Your task to perform on an android device: Go to battery settings Image 0: 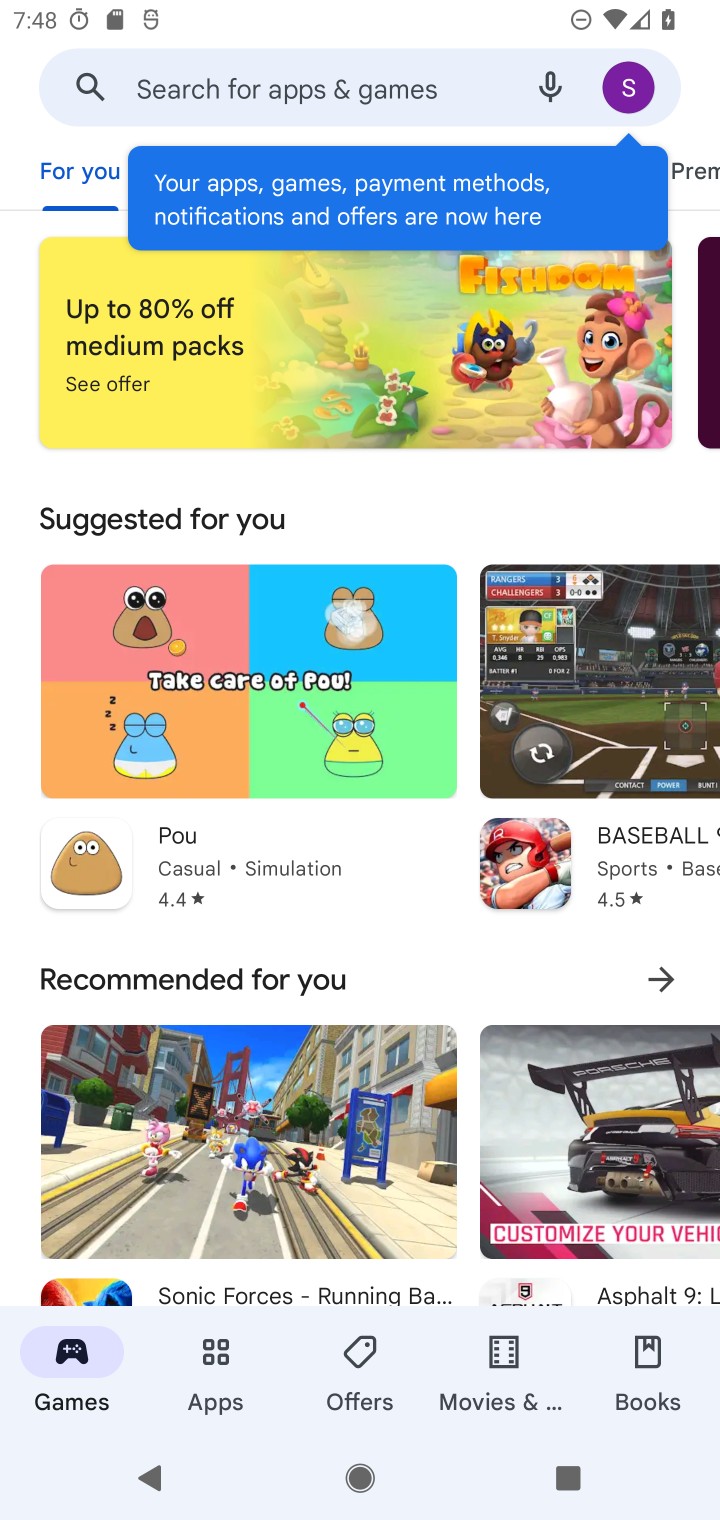
Step 0: press home button
Your task to perform on an android device: Go to battery settings Image 1: 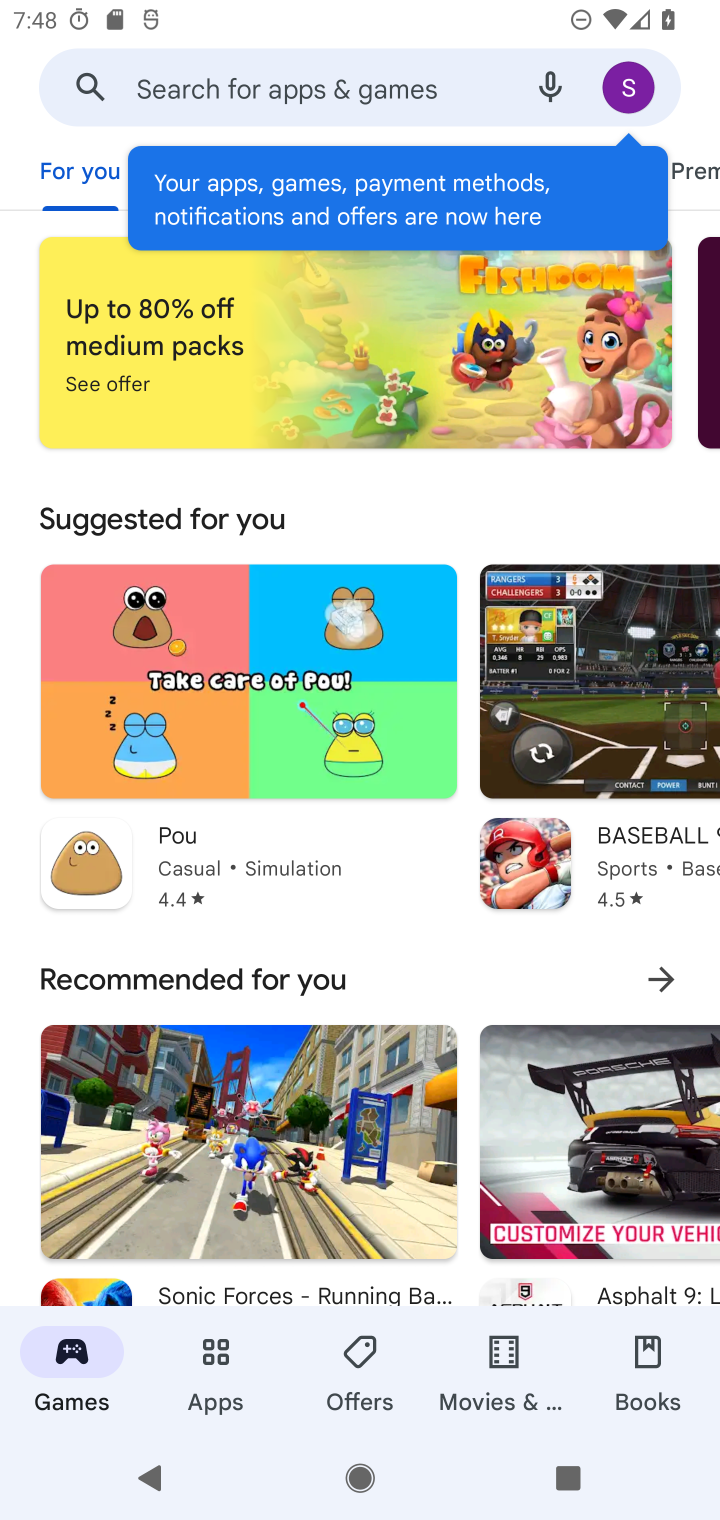
Step 1: press home button
Your task to perform on an android device: Go to battery settings Image 2: 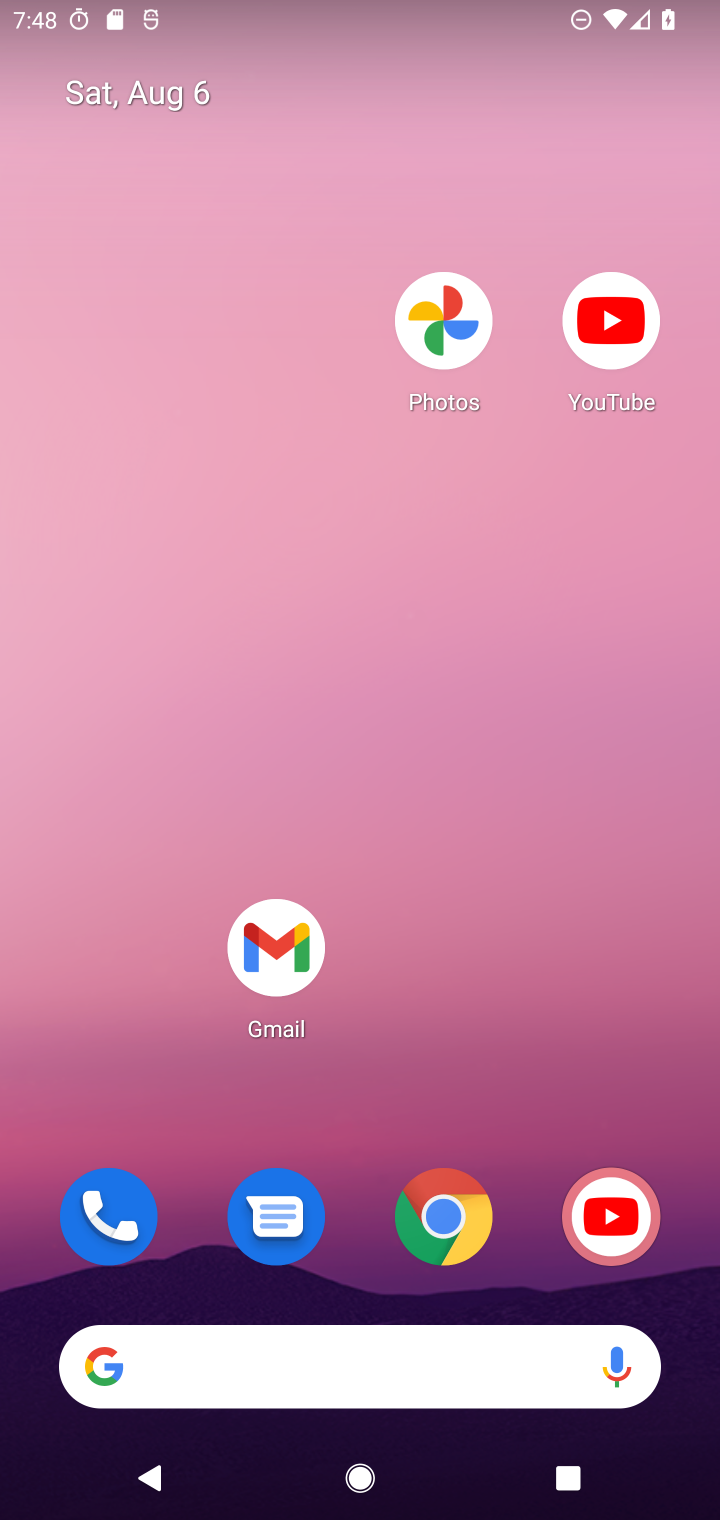
Step 2: drag from (446, 905) to (436, 110)
Your task to perform on an android device: Go to battery settings Image 3: 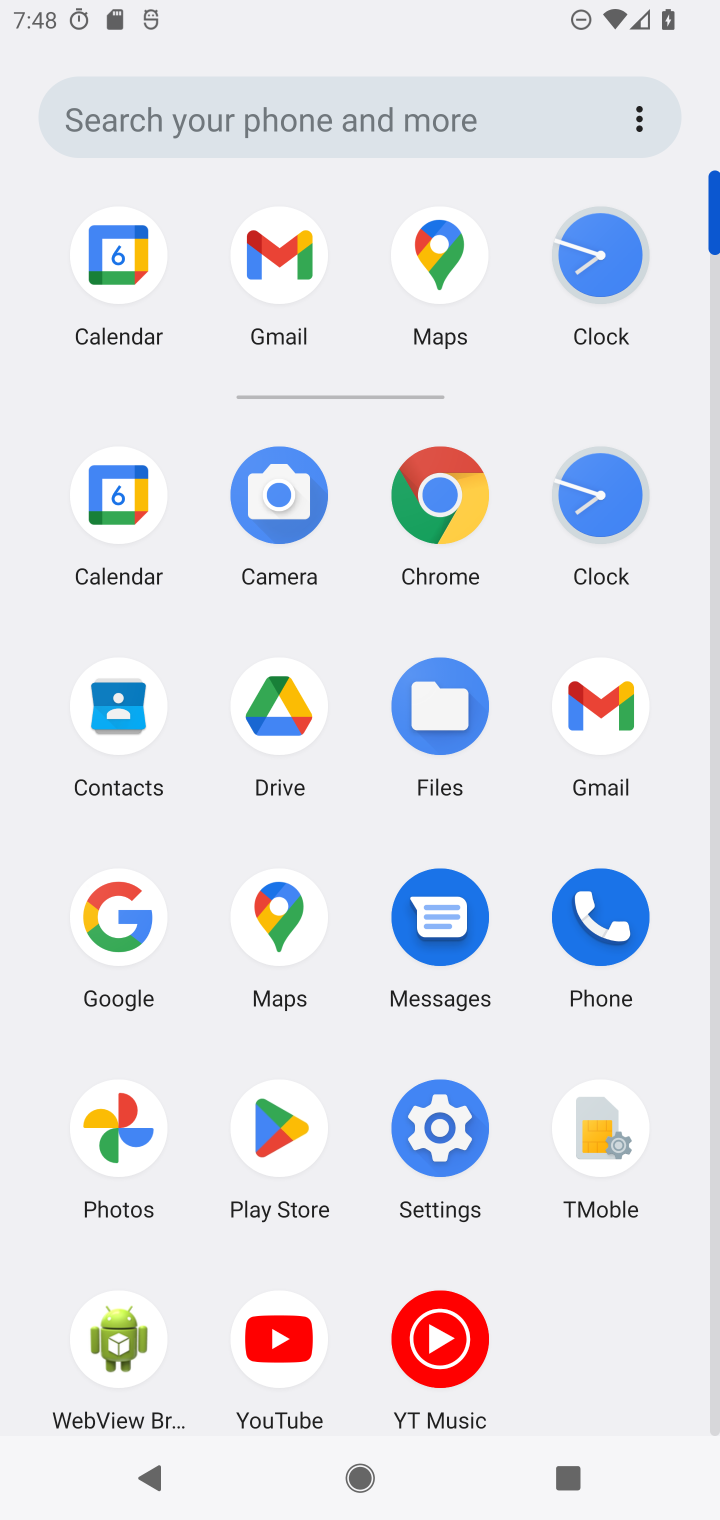
Step 3: click (457, 1143)
Your task to perform on an android device: Go to battery settings Image 4: 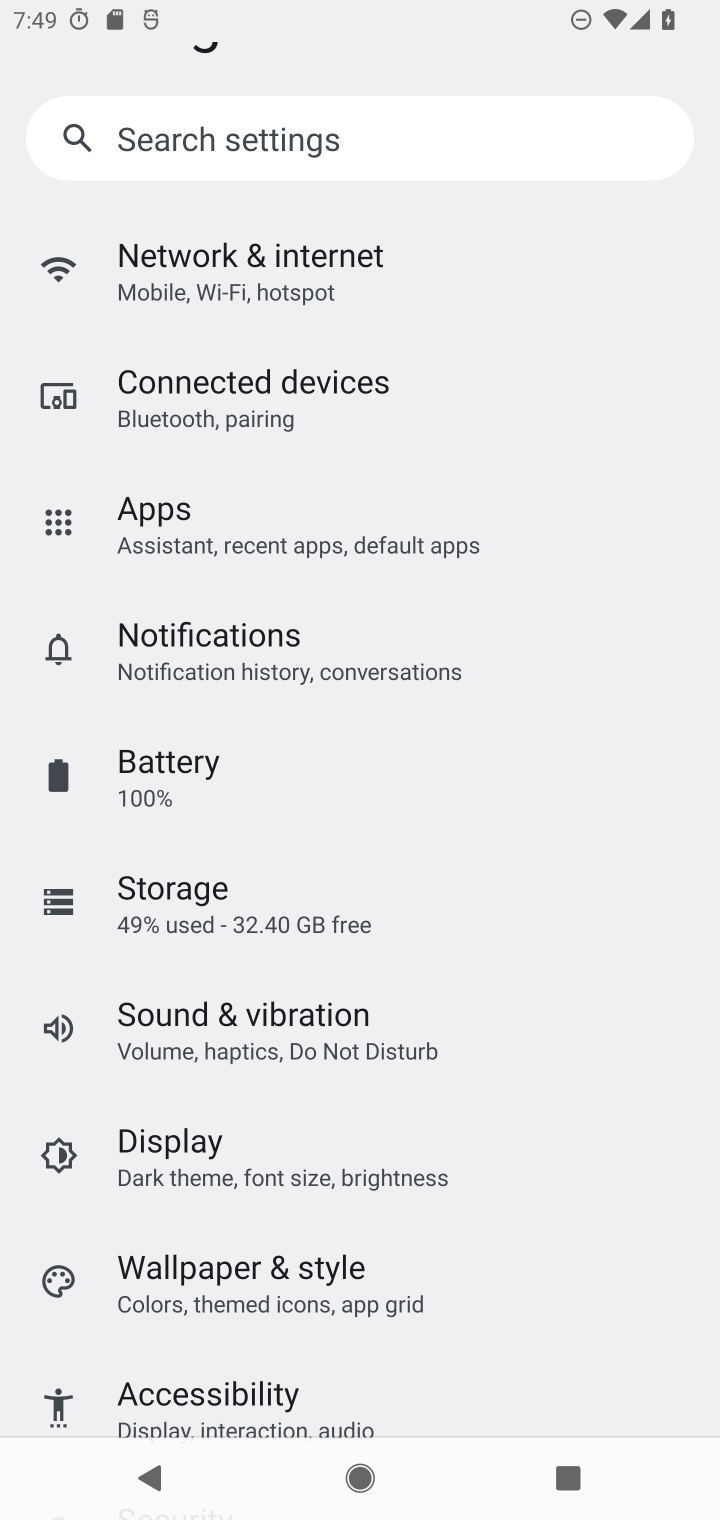
Step 4: click (169, 789)
Your task to perform on an android device: Go to battery settings Image 5: 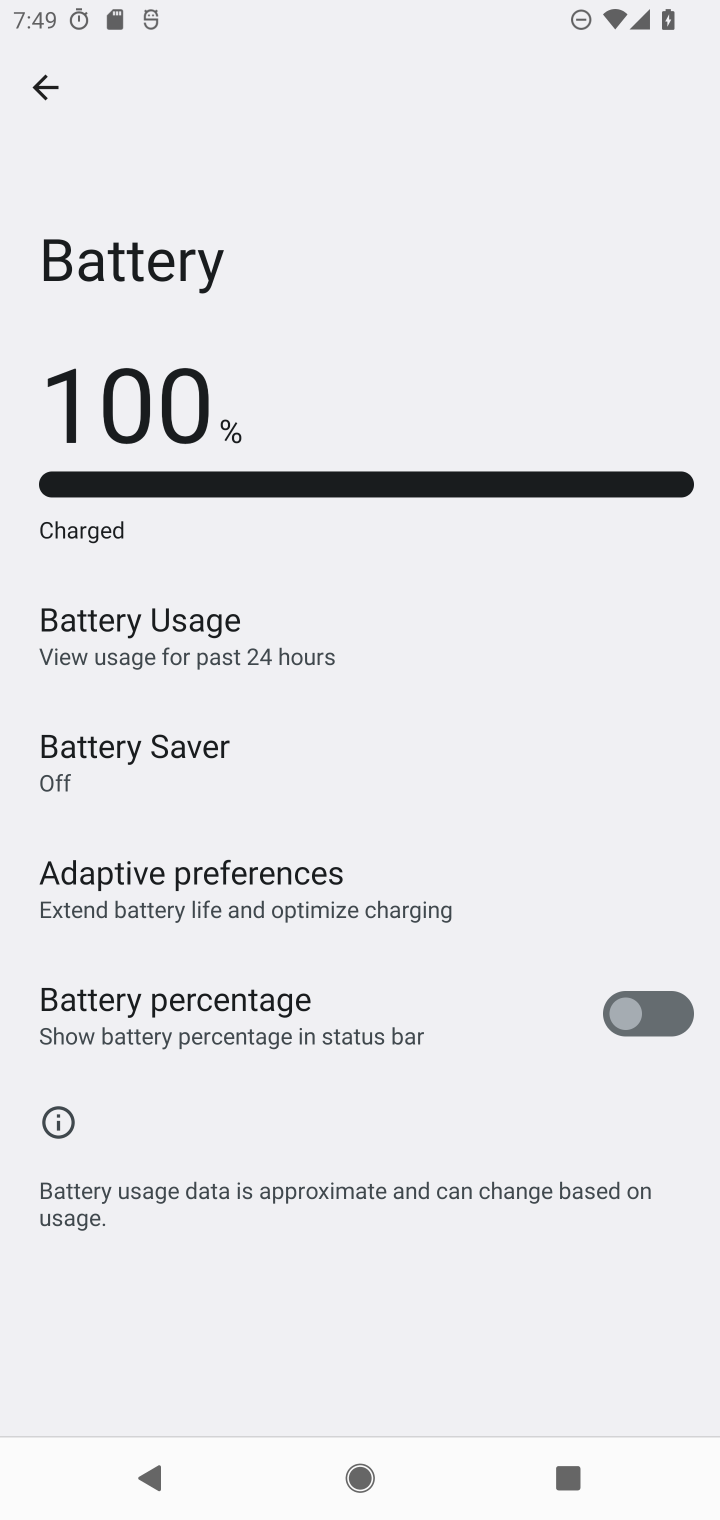
Step 5: task complete